Your task to perform on an android device: check battery use Image 0: 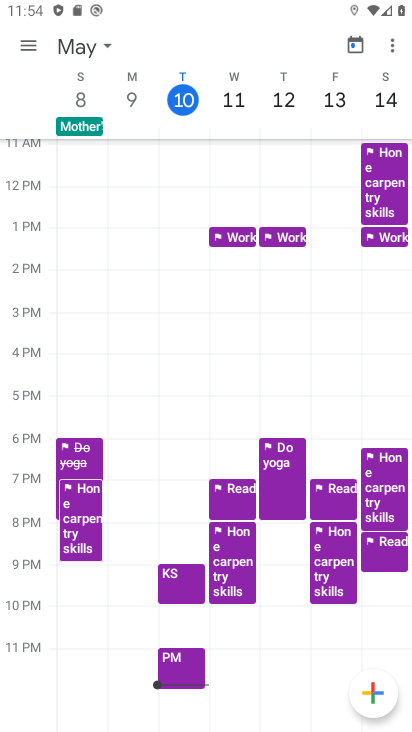
Step 0: press home button
Your task to perform on an android device: check battery use Image 1: 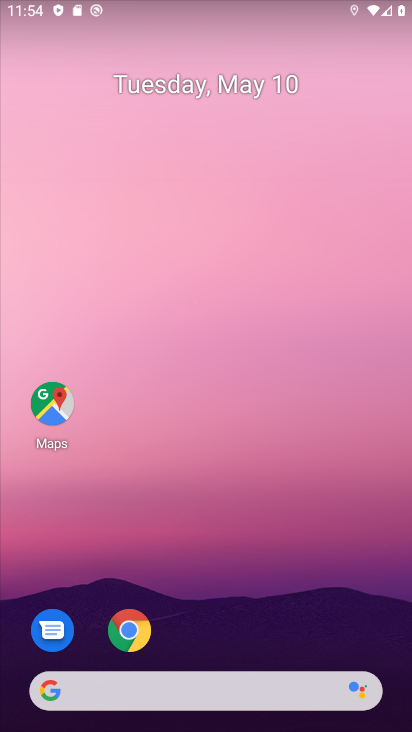
Step 1: drag from (178, 647) to (202, 4)
Your task to perform on an android device: check battery use Image 2: 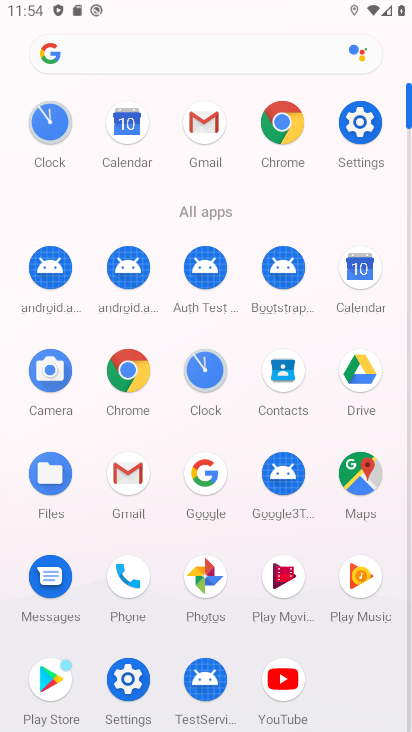
Step 2: click (370, 130)
Your task to perform on an android device: check battery use Image 3: 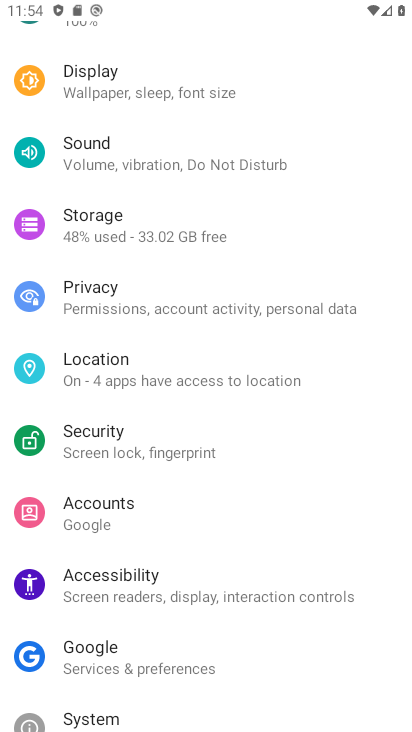
Step 3: drag from (98, 103) to (128, 433)
Your task to perform on an android device: check battery use Image 4: 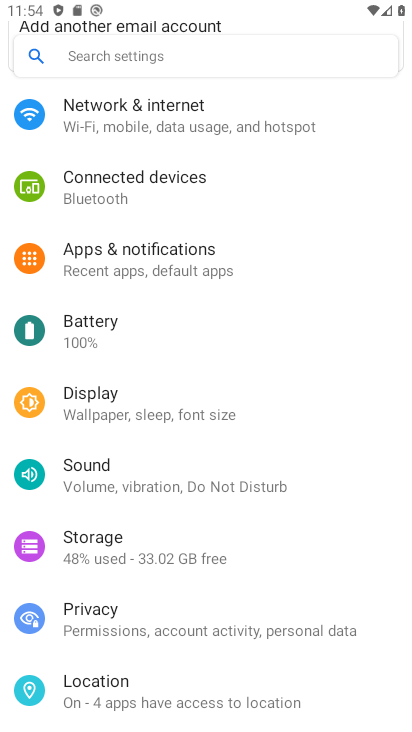
Step 4: click (115, 329)
Your task to perform on an android device: check battery use Image 5: 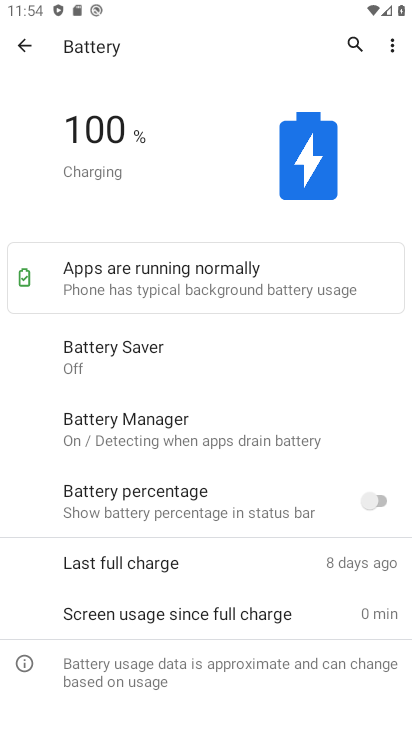
Step 5: click (392, 42)
Your task to perform on an android device: check battery use Image 6: 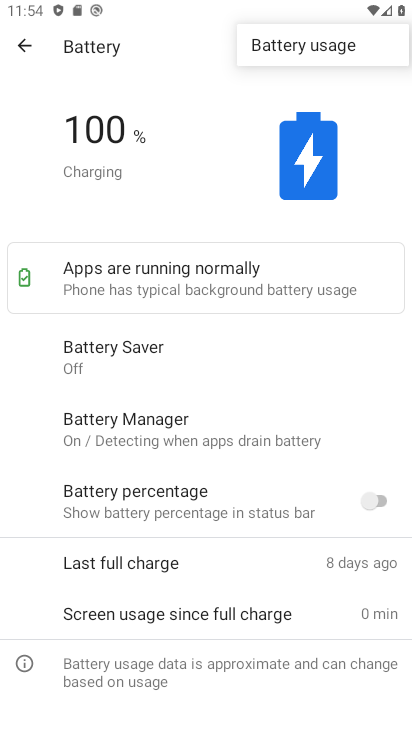
Step 6: click (371, 45)
Your task to perform on an android device: check battery use Image 7: 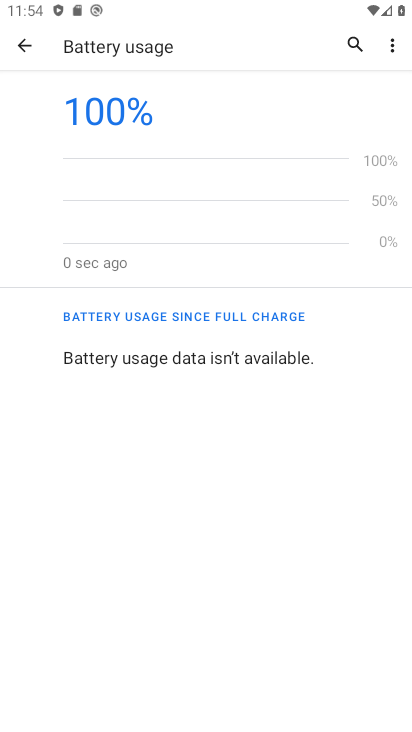
Step 7: task complete